Your task to perform on an android device: Toggle the flashlight Image 0: 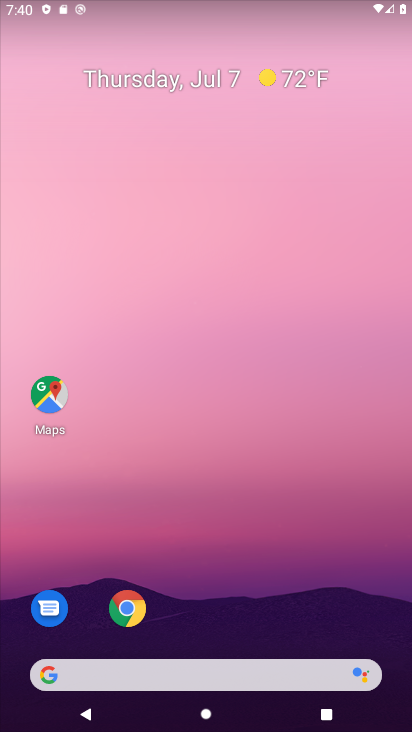
Step 0: drag from (398, 683) to (362, 103)
Your task to perform on an android device: Toggle the flashlight Image 1: 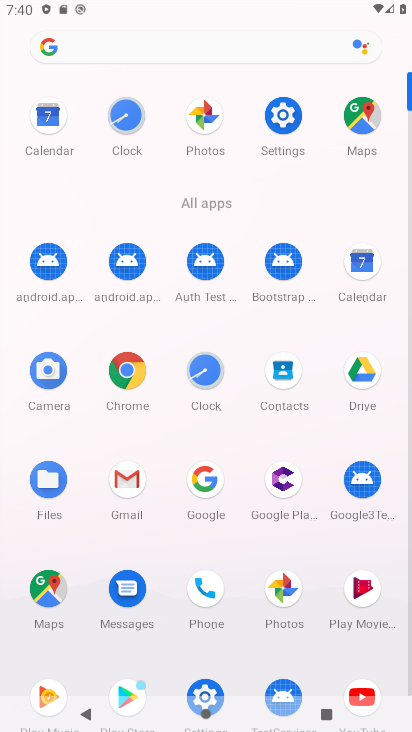
Step 1: click (280, 118)
Your task to perform on an android device: Toggle the flashlight Image 2: 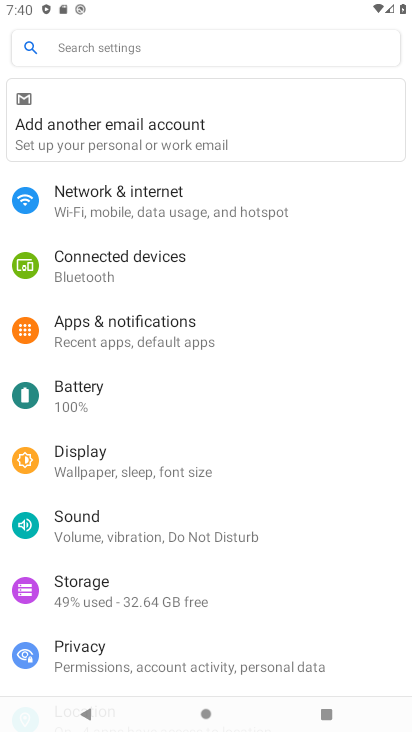
Step 2: click (90, 454)
Your task to perform on an android device: Toggle the flashlight Image 3: 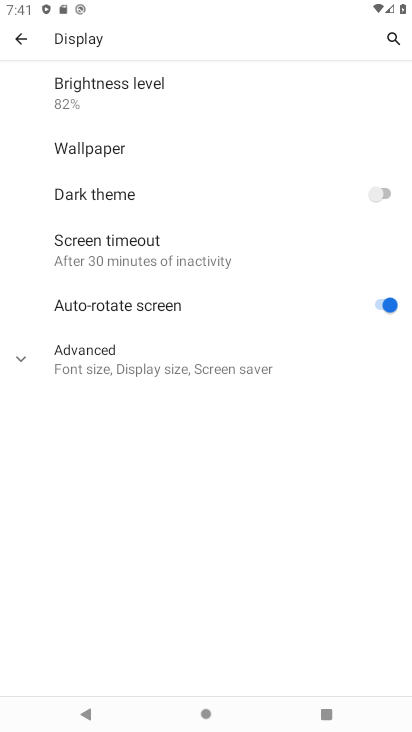
Step 3: task complete